Your task to perform on an android device: Open sound settings Image 0: 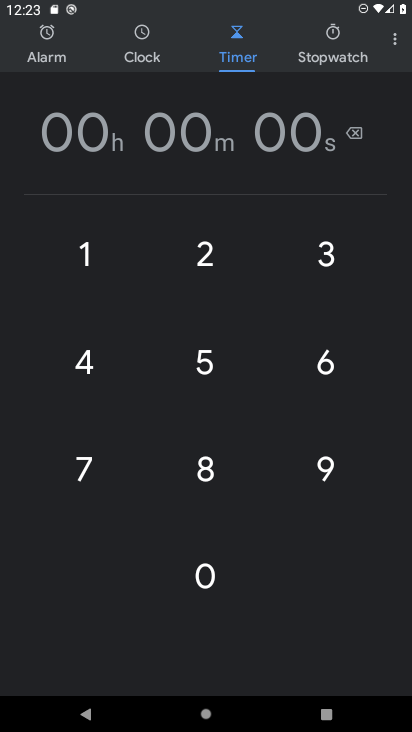
Step 0: press home button
Your task to perform on an android device: Open sound settings Image 1: 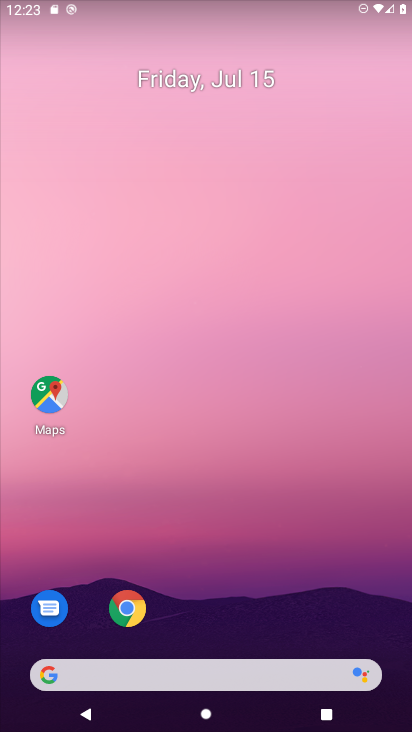
Step 1: drag from (172, 642) to (280, 100)
Your task to perform on an android device: Open sound settings Image 2: 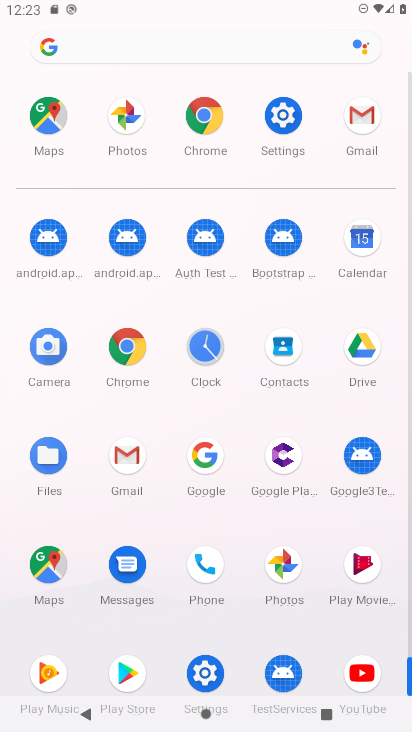
Step 2: click (278, 119)
Your task to perform on an android device: Open sound settings Image 3: 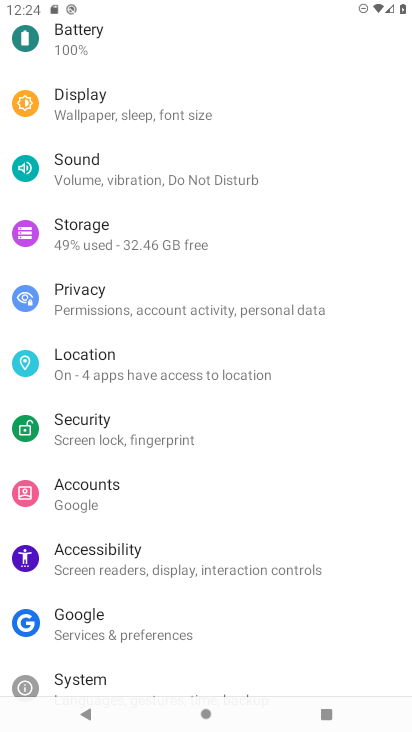
Step 3: click (93, 171)
Your task to perform on an android device: Open sound settings Image 4: 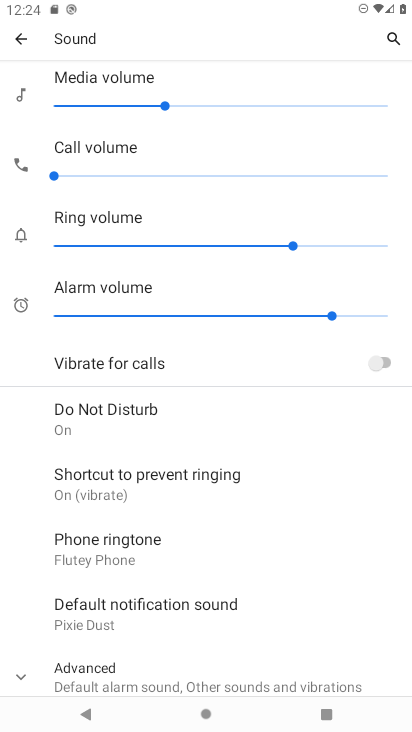
Step 4: task complete